Your task to perform on an android device: Open location settings Image 0: 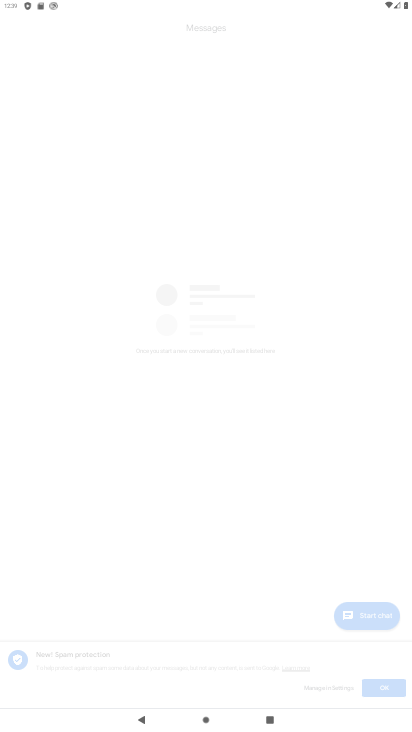
Step 0: drag from (179, 8) to (248, 376)
Your task to perform on an android device: Open location settings Image 1: 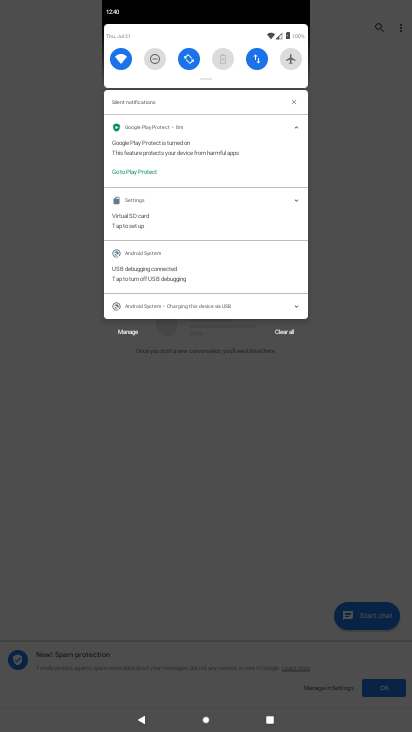
Step 1: press home button
Your task to perform on an android device: Open location settings Image 2: 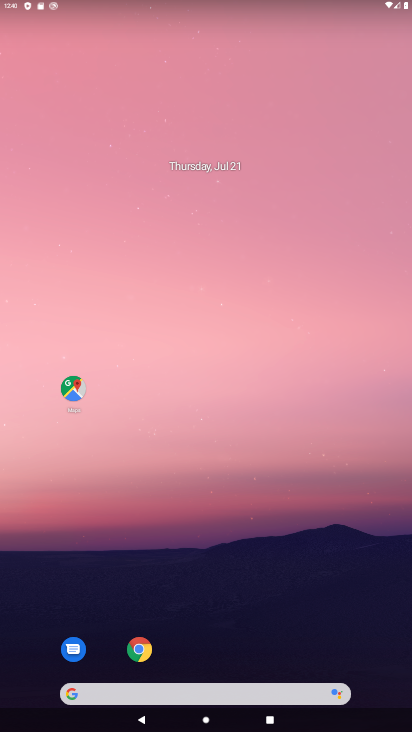
Step 2: drag from (187, 674) to (117, 258)
Your task to perform on an android device: Open location settings Image 3: 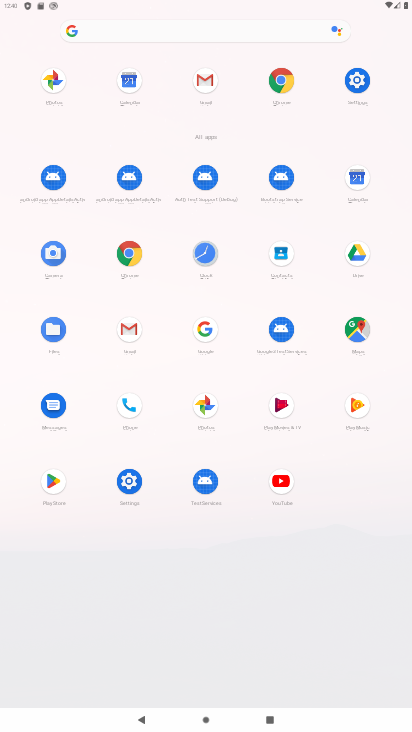
Step 3: click (123, 486)
Your task to perform on an android device: Open location settings Image 4: 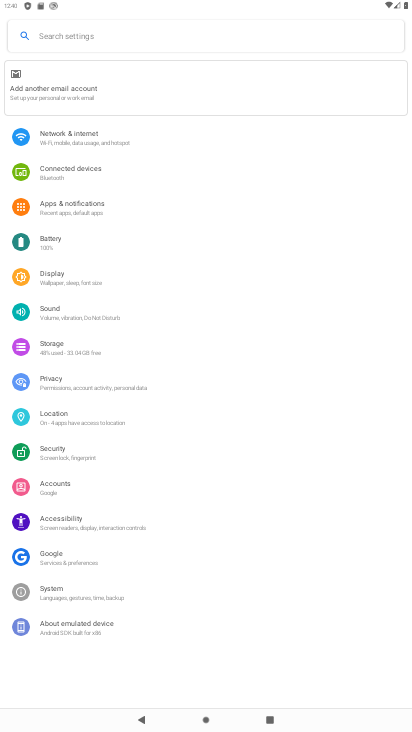
Step 4: click (77, 413)
Your task to perform on an android device: Open location settings Image 5: 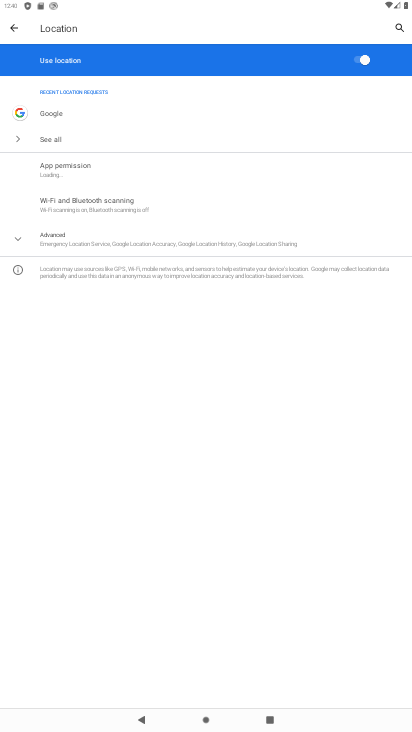
Step 5: click (70, 238)
Your task to perform on an android device: Open location settings Image 6: 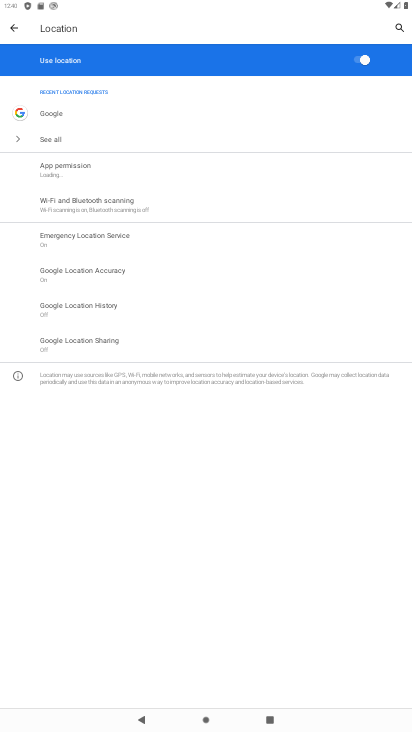
Step 6: task complete